Your task to perform on an android device: Open CNN.com Image 0: 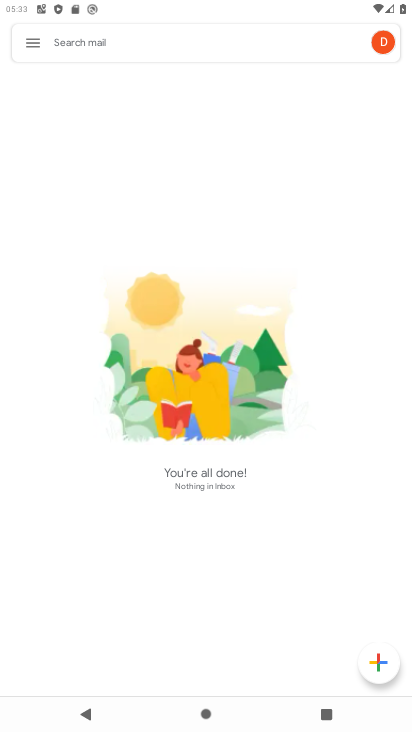
Step 0: press home button
Your task to perform on an android device: Open CNN.com Image 1: 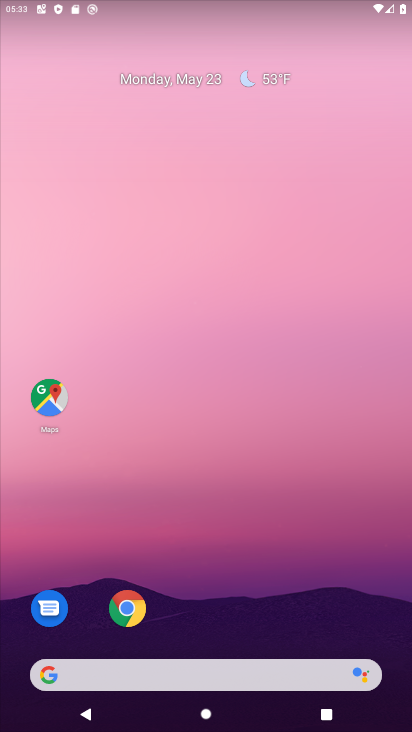
Step 1: click (128, 607)
Your task to perform on an android device: Open CNN.com Image 2: 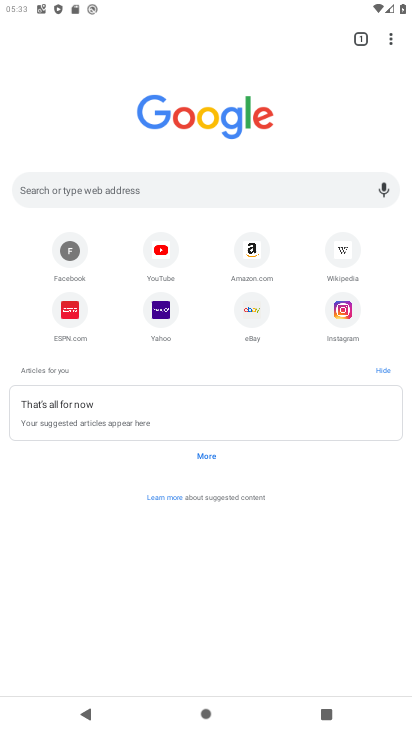
Step 2: click (202, 190)
Your task to perform on an android device: Open CNN.com Image 3: 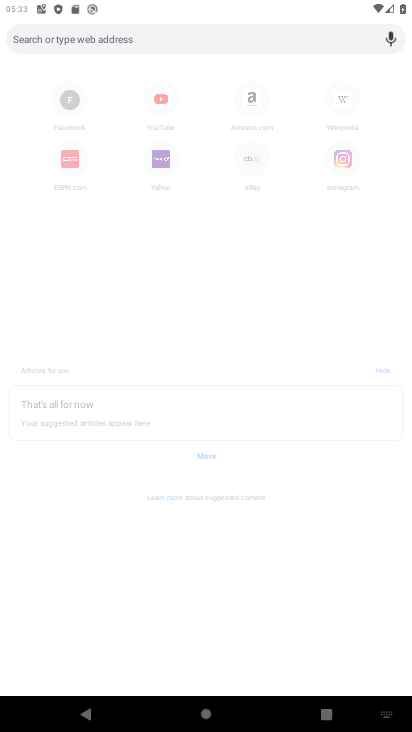
Step 3: type "CNN.com"
Your task to perform on an android device: Open CNN.com Image 4: 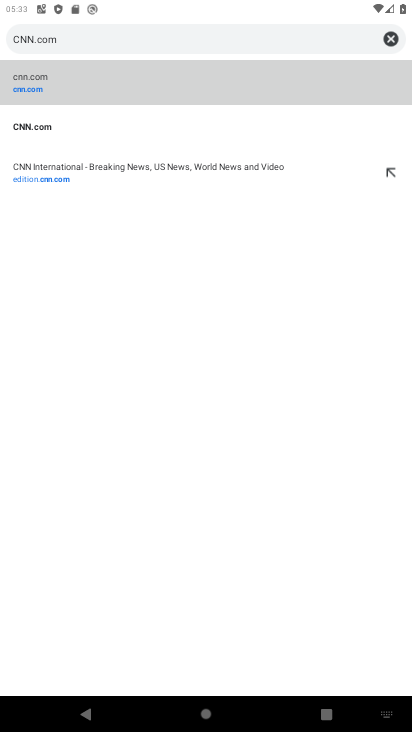
Step 4: click (99, 83)
Your task to perform on an android device: Open CNN.com Image 5: 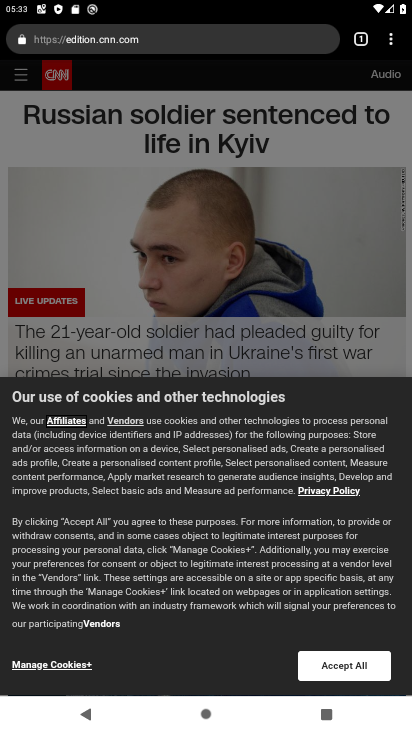
Step 5: task complete